Your task to perform on an android device: search for starred emails in the gmail app Image 0: 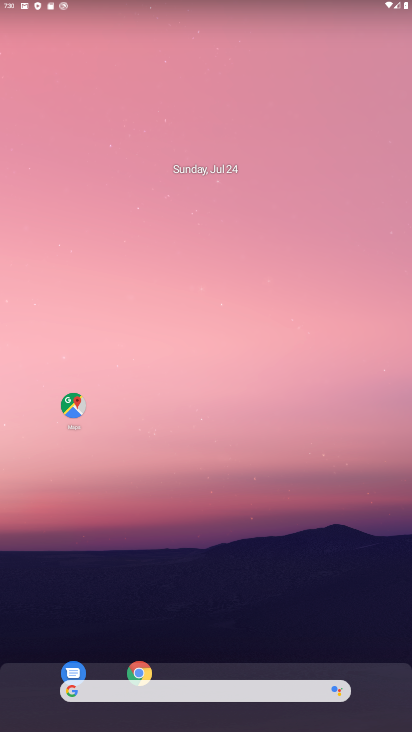
Step 0: drag from (223, 426) to (10, 444)
Your task to perform on an android device: search for starred emails in the gmail app Image 1: 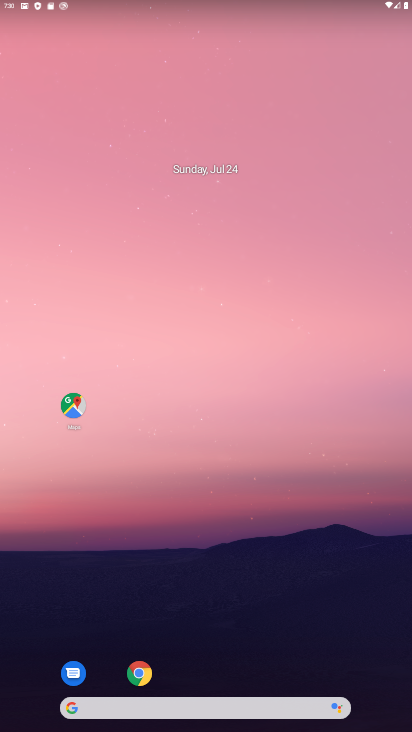
Step 1: drag from (391, 59) to (245, 17)
Your task to perform on an android device: search for starred emails in the gmail app Image 2: 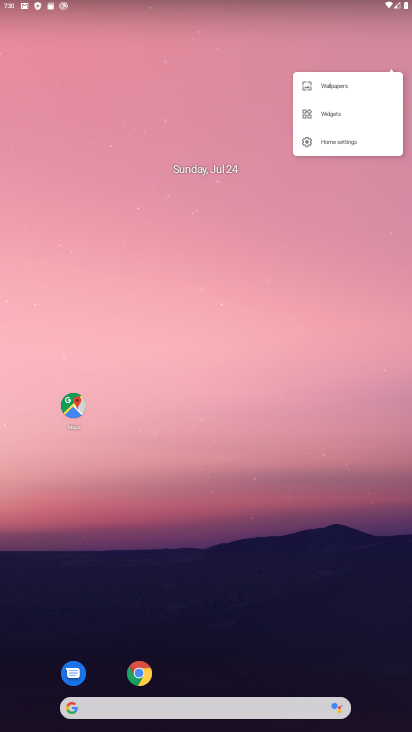
Step 2: drag from (187, 610) to (244, 168)
Your task to perform on an android device: search for starred emails in the gmail app Image 3: 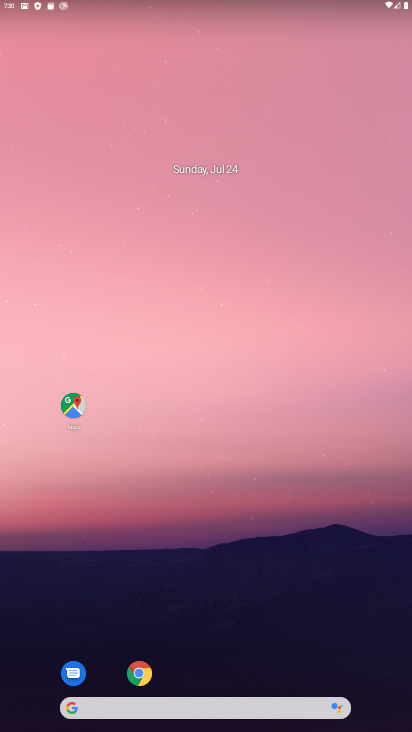
Step 3: drag from (187, 637) to (303, 3)
Your task to perform on an android device: search for starred emails in the gmail app Image 4: 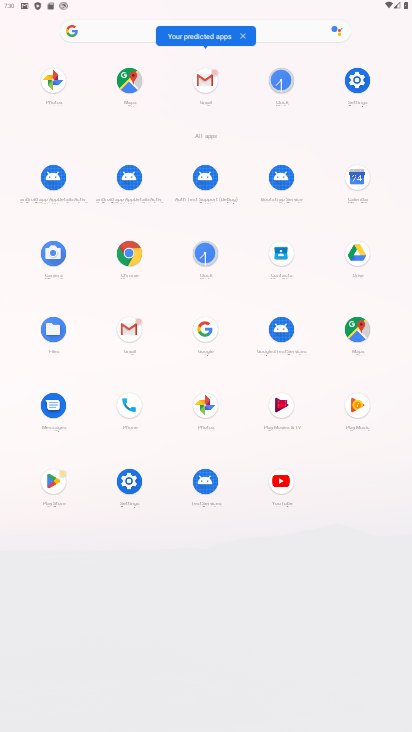
Step 4: click (204, 79)
Your task to perform on an android device: search for starred emails in the gmail app Image 5: 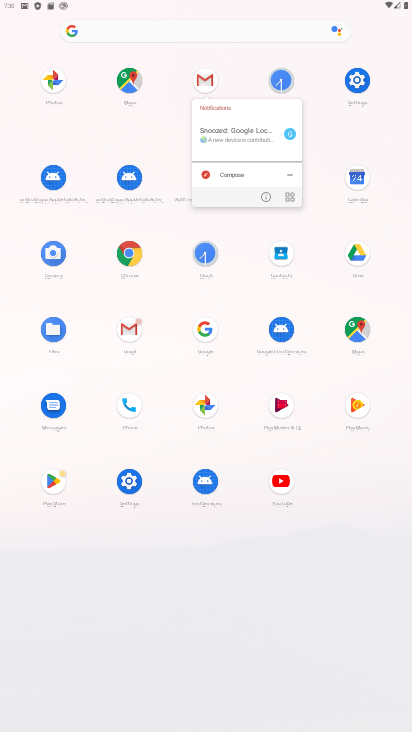
Step 5: click (260, 200)
Your task to perform on an android device: search for starred emails in the gmail app Image 6: 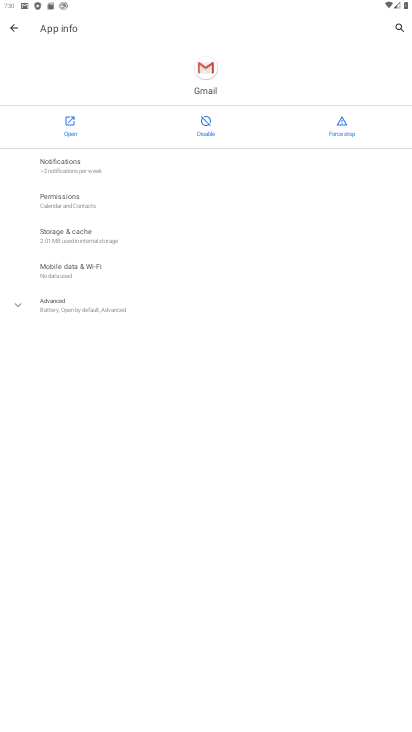
Step 6: click (72, 130)
Your task to perform on an android device: search for starred emails in the gmail app Image 7: 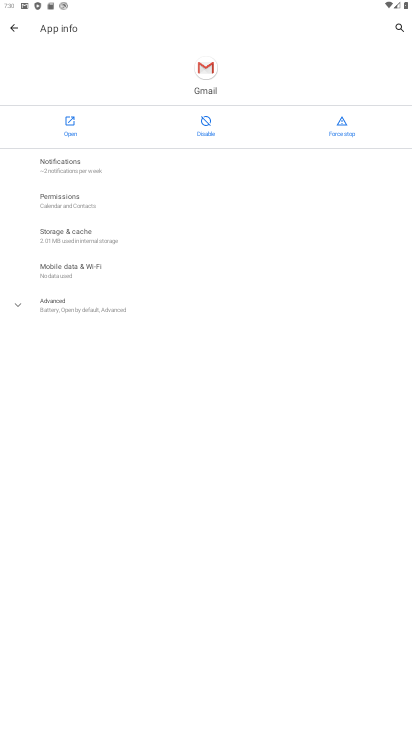
Step 7: click (72, 130)
Your task to perform on an android device: search for starred emails in the gmail app Image 8: 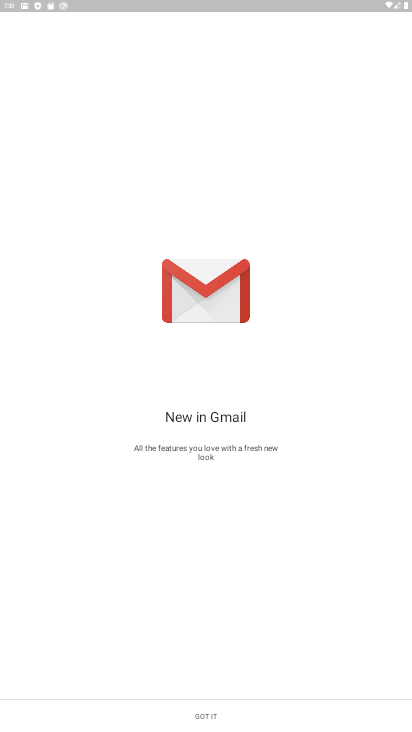
Step 8: click (164, 729)
Your task to perform on an android device: search for starred emails in the gmail app Image 9: 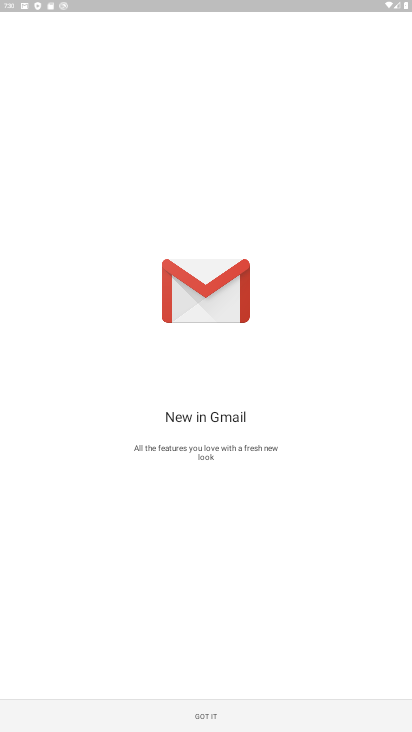
Step 9: click (209, 694)
Your task to perform on an android device: search for starred emails in the gmail app Image 10: 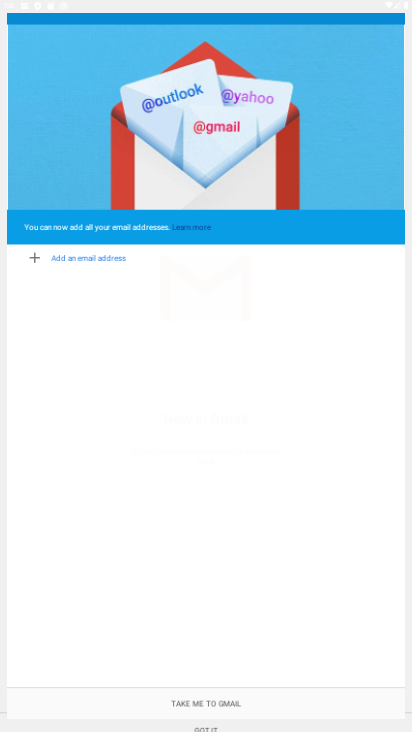
Step 10: click (217, 719)
Your task to perform on an android device: search for starred emails in the gmail app Image 11: 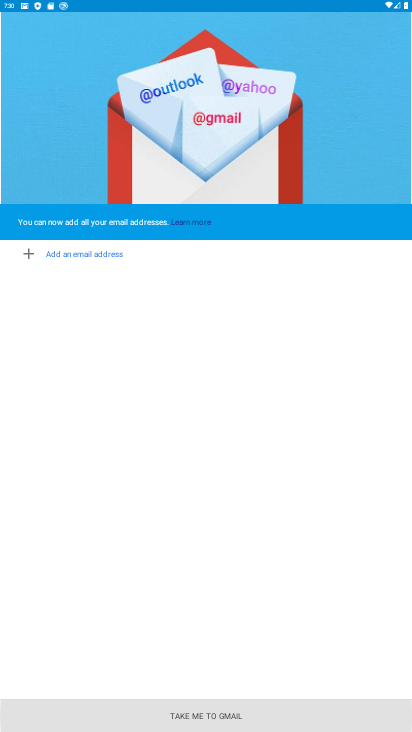
Step 11: click (216, 719)
Your task to perform on an android device: search for starred emails in the gmail app Image 12: 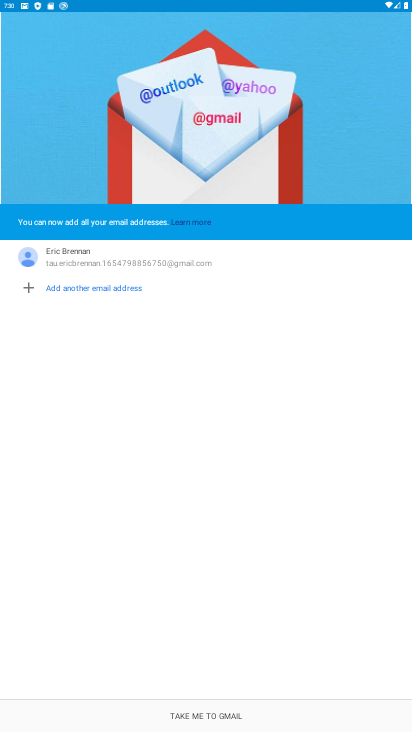
Step 12: click (210, 720)
Your task to perform on an android device: search for starred emails in the gmail app Image 13: 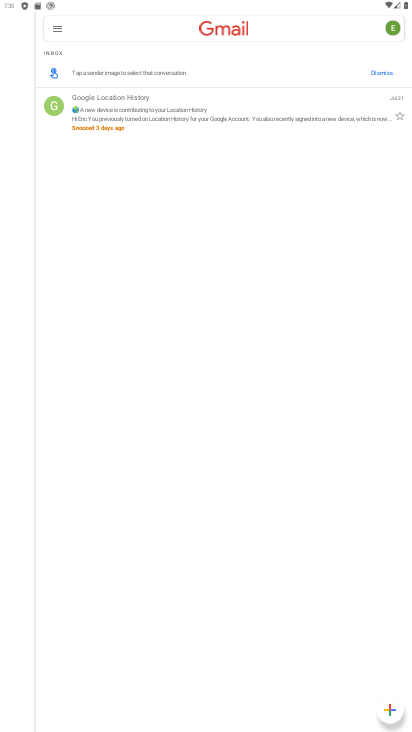
Step 13: click (60, 26)
Your task to perform on an android device: search for starred emails in the gmail app Image 14: 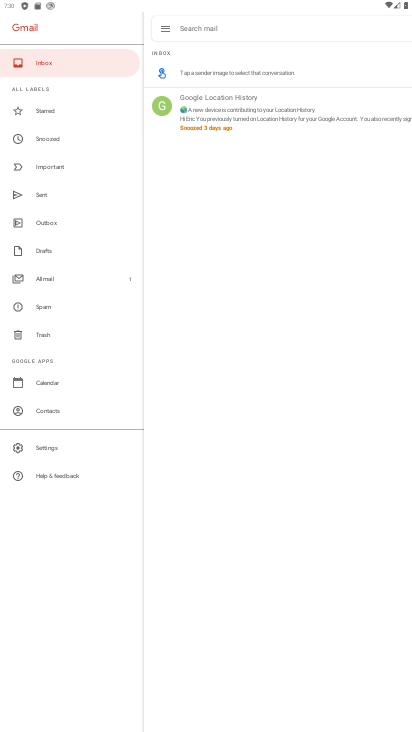
Step 14: click (67, 117)
Your task to perform on an android device: search for starred emails in the gmail app Image 15: 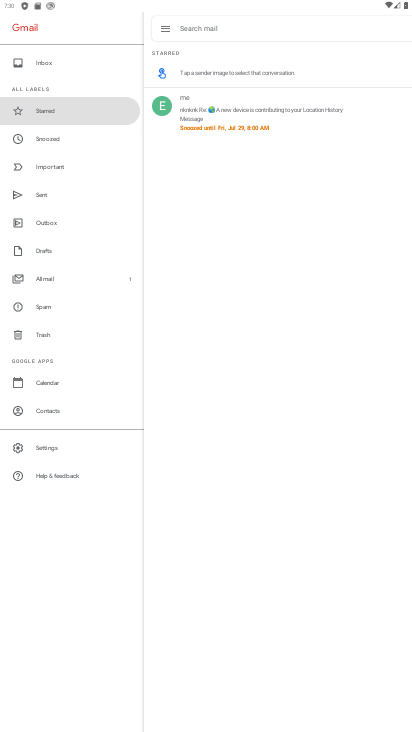
Step 15: click (335, 353)
Your task to perform on an android device: search for starred emails in the gmail app Image 16: 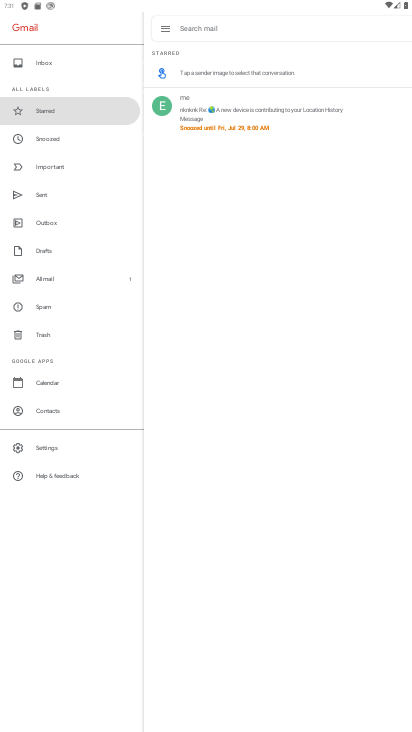
Step 16: task complete